Your task to perform on an android device: allow cookies in the chrome app Image 0: 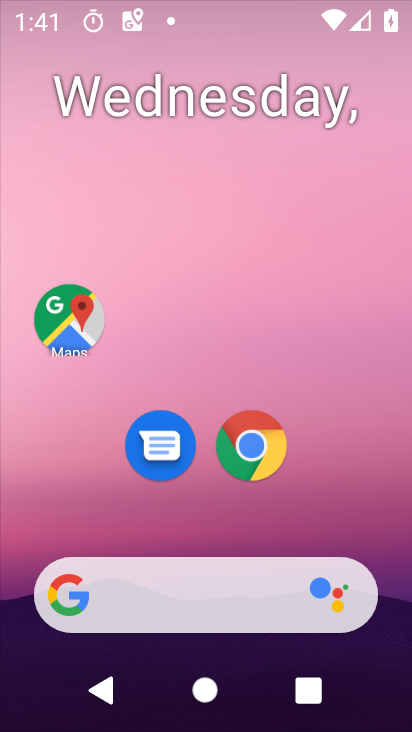
Step 0: press home button
Your task to perform on an android device: allow cookies in the chrome app Image 1: 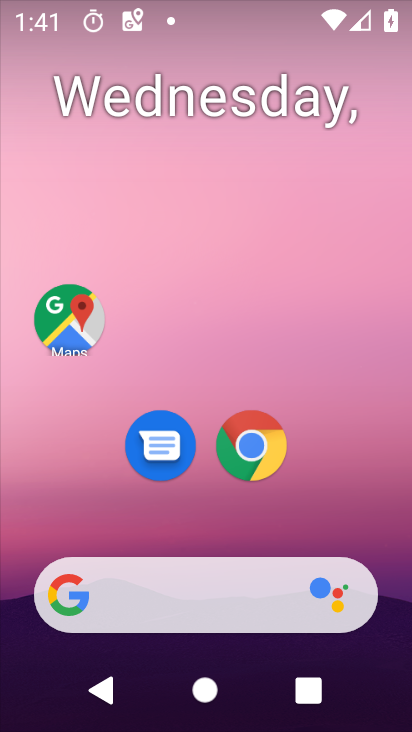
Step 1: drag from (366, 470) to (306, 177)
Your task to perform on an android device: allow cookies in the chrome app Image 2: 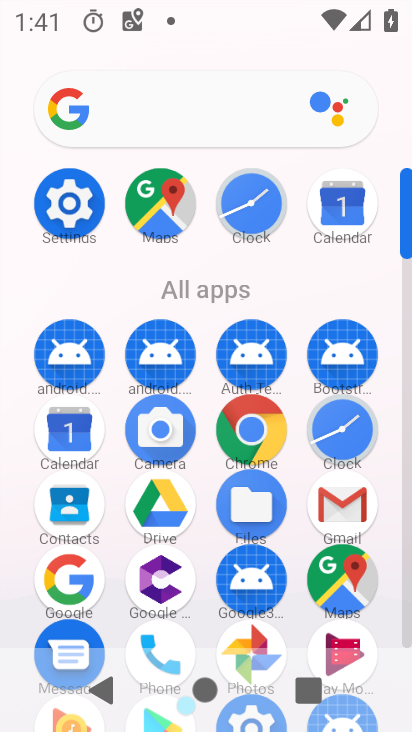
Step 2: click (239, 432)
Your task to perform on an android device: allow cookies in the chrome app Image 3: 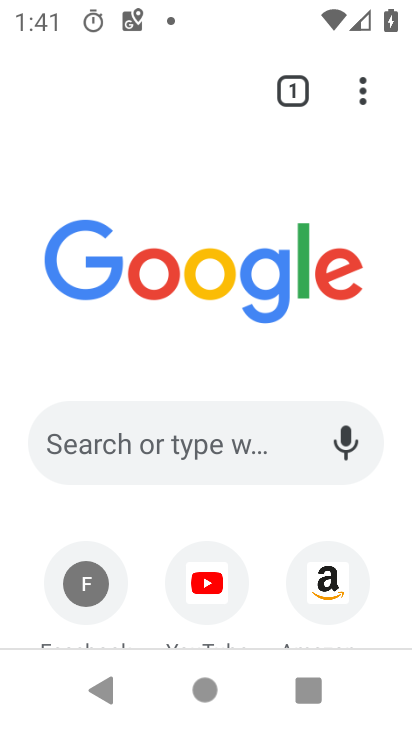
Step 3: drag from (367, 86) to (127, 492)
Your task to perform on an android device: allow cookies in the chrome app Image 4: 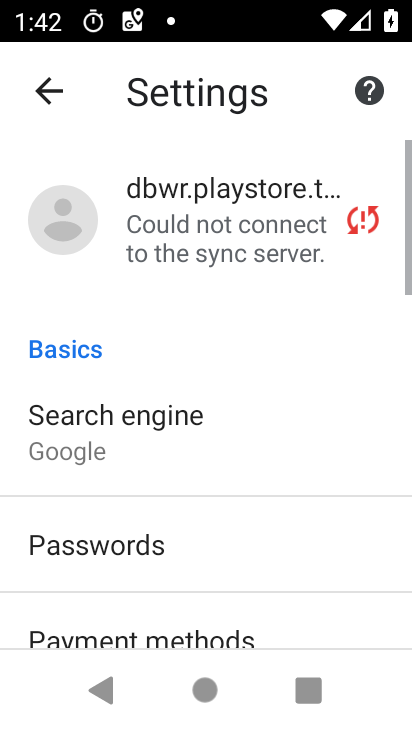
Step 4: drag from (215, 580) to (185, 173)
Your task to perform on an android device: allow cookies in the chrome app Image 5: 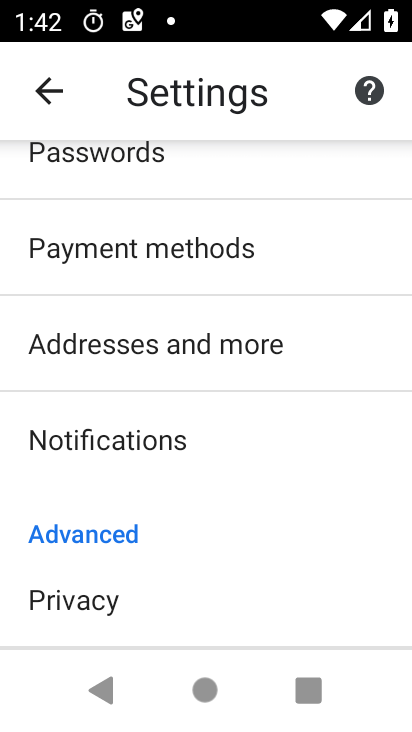
Step 5: drag from (181, 584) to (177, 231)
Your task to perform on an android device: allow cookies in the chrome app Image 6: 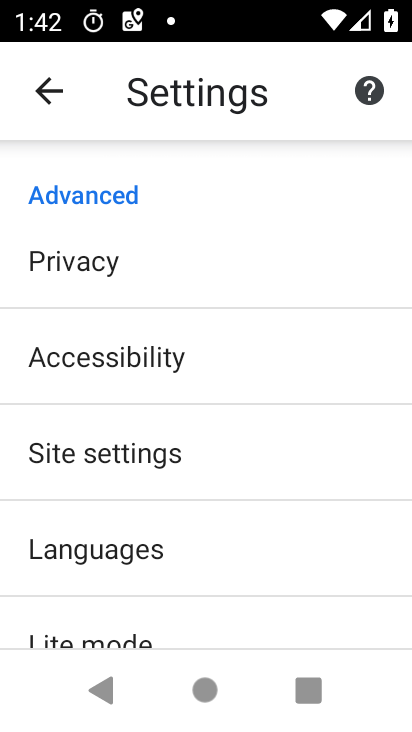
Step 6: click (168, 451)
Your task to perform on an android device: allow cookies in the chrome app Image 7: 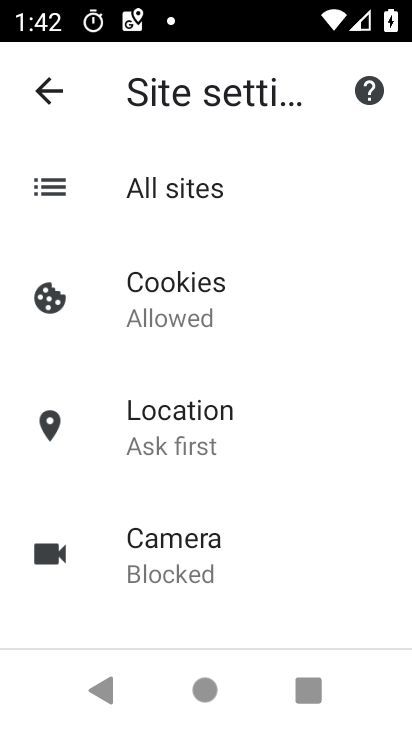
Step 7: click (218, 312)
Your task to perform on an android device: allow cookies in the chrome app Image 8: 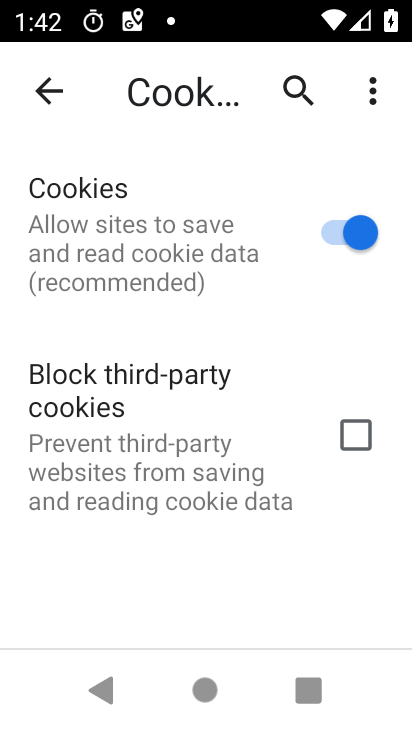
Step 8: task complete